Your task to perform on an android device: turn on improve location accuracy Image 0: 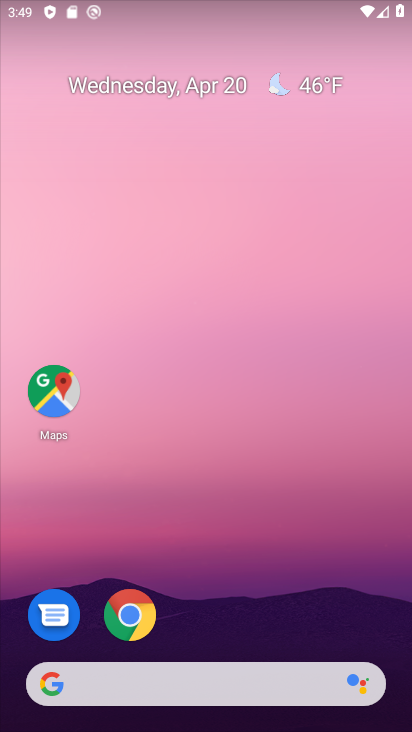
Step 0: drag from (252, 519) to (321, 152)
Your task to perform on an android device: turn on improve location accuracy Image 1: 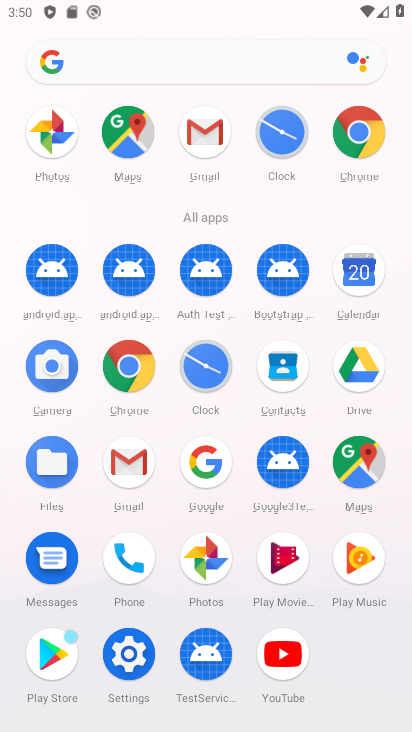
Step 1: click (132, 670)
Your task to perform on an android device: turn on improve location accuracy Image 2: 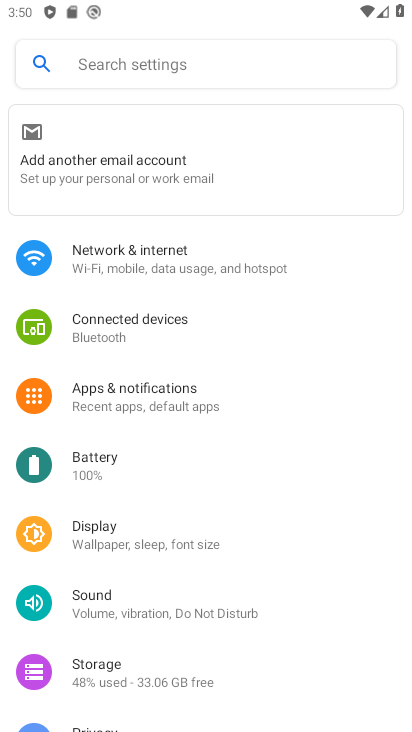
Step 2: drag from (202, 542) to (267, 252)
Your task to perform on an android device: turn on improve location accuracy Image 3: 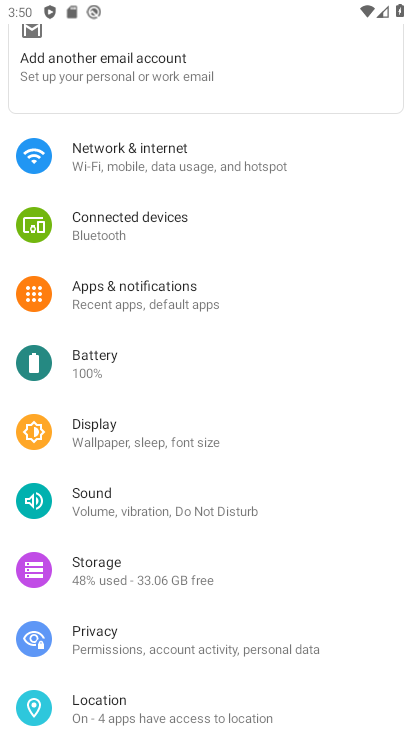
Step 3: drag from (168, 613) to (267, 209)
Your task to perform on an android device: turn on improve location accuracy Image 4: 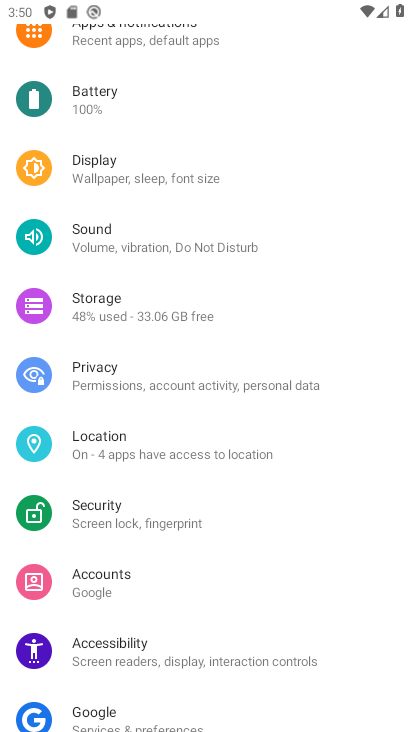
Step 4: click (99, 448)
Your task to perform on an android device: turn on improve location accuracy Image 5: 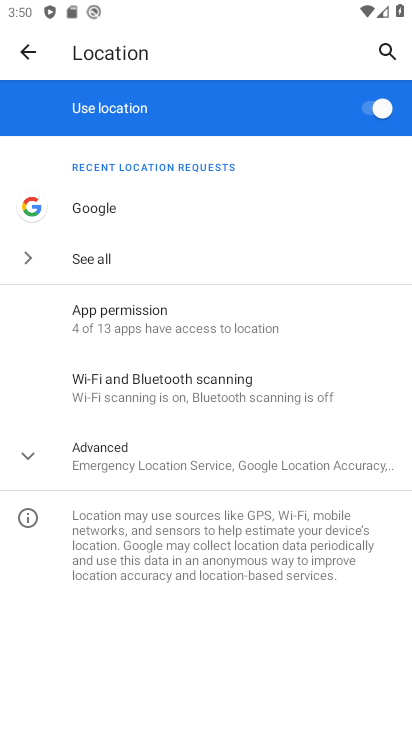
Step 5: click (131, 461)
Your task to perform on an android device: turn on improve location accuracy Image 6: 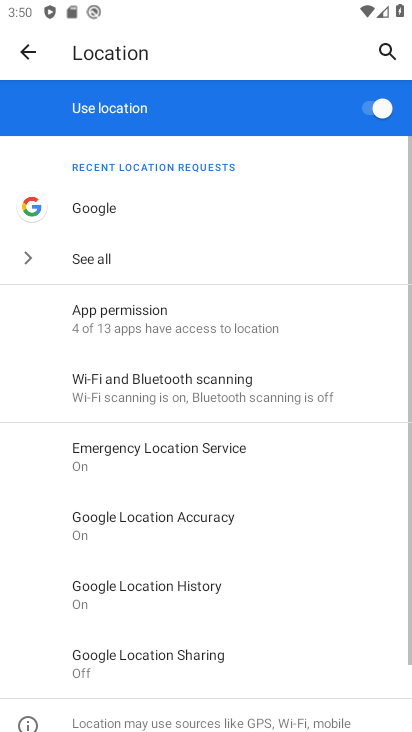
Step 6: drag from (175, 588) to (241, 380)
Your task to perform on an android device: turn on improve location accuracy Image 7: 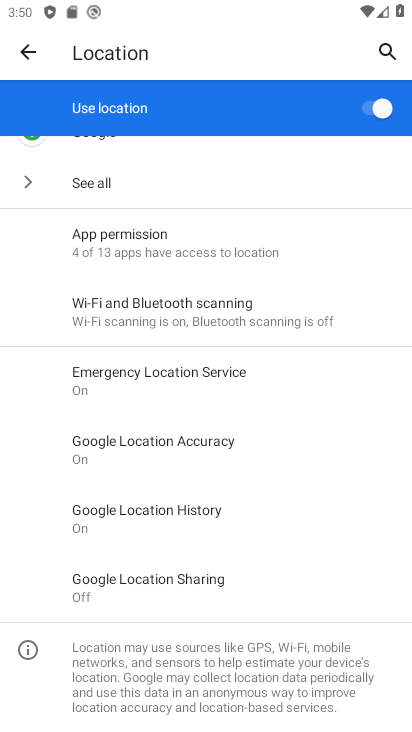
Step 7: drag from (227, 551) to (231, 366)
Your task to perform on an android device: turn on improve location accuracy Image 8: 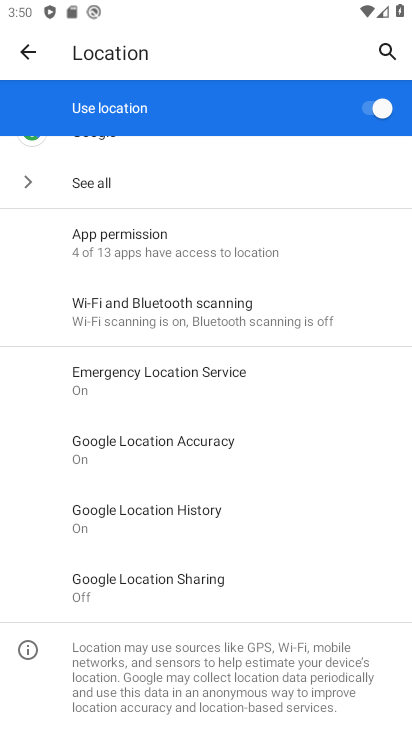
Step 8: click (207, 452)
Your task to perform on an android device: turn on improve location accuracy Image 9: 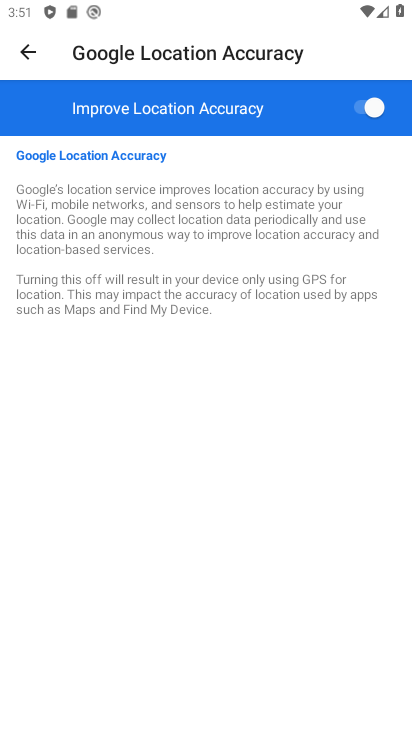
Step 9: task complete